Your task to perform on an android device: allow notifications from all sites in the chrome app Image 0: 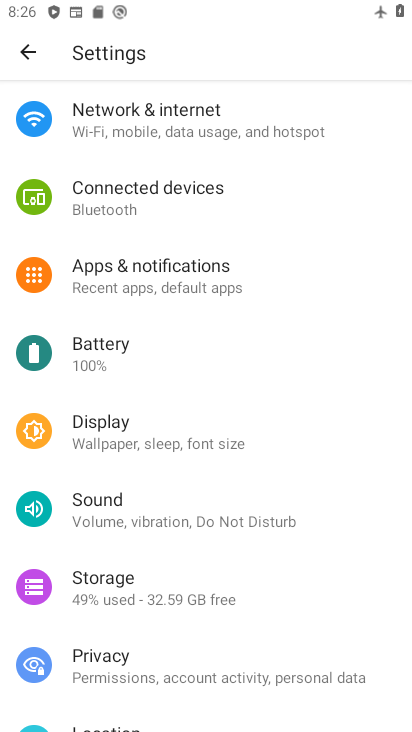
Step 0: press home button
Your task to perform on an android device: allow notifications from all sites in the chrome app Image 1: 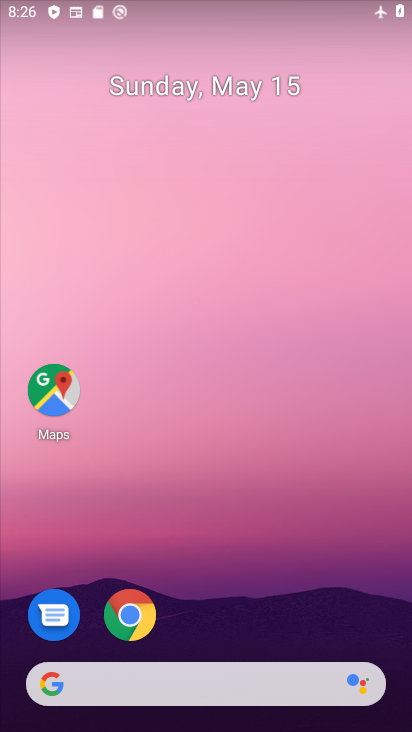
Step 1: click (124, 610)
Your task to perform on an android device: allow notifications from all sites in the chrome app Image 2: 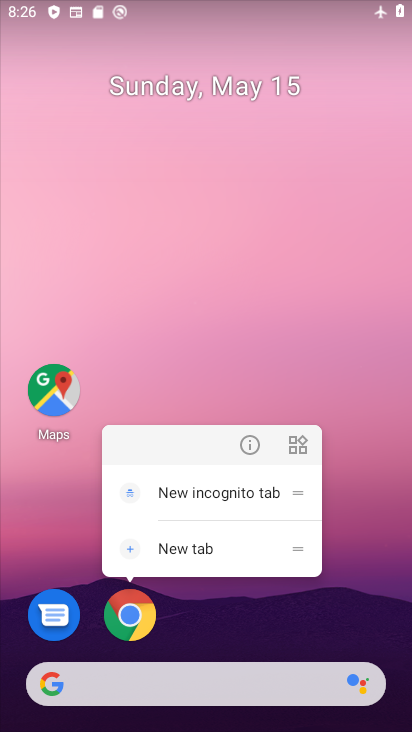
Step 2: click (118, 612)
Your task to perform on an android device: allow notifications from all sites in the chrome app Image 3: 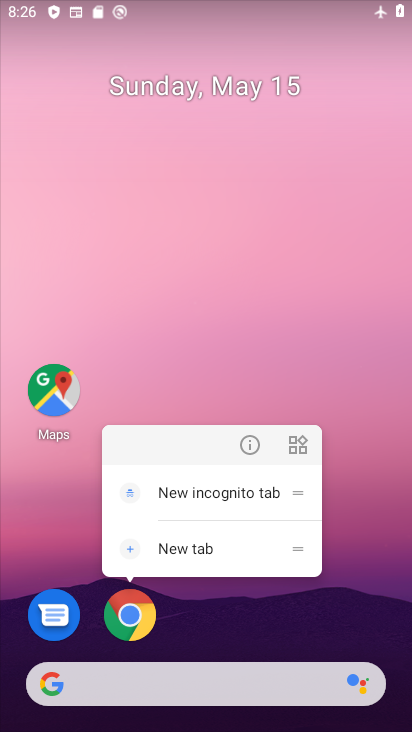
Step 3: click (149, 606)
Your task to perform on an android device: allow notifications from all sites in the chrome app Image 4: 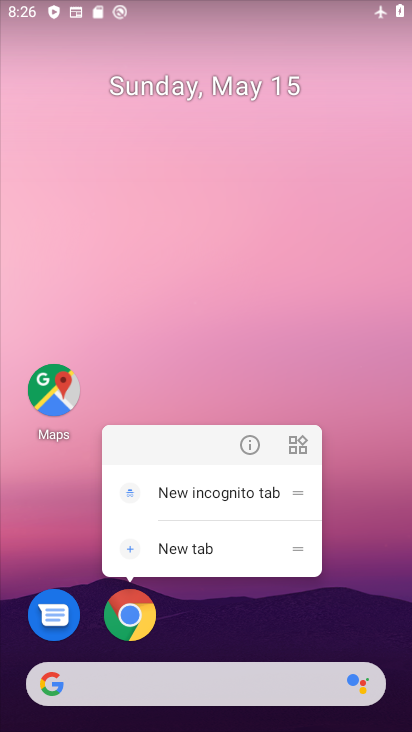
Step 4: click (130, 617)
Your task to perform on an android device: allow notifications from all sites in the chrome app Image 5: 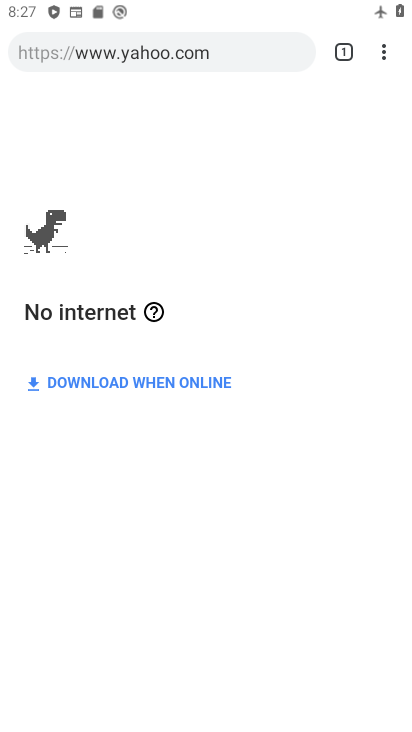
Step 5: press home button
Your task to perform on an android device: allow notifications from all sites in the chrome app Image 6: 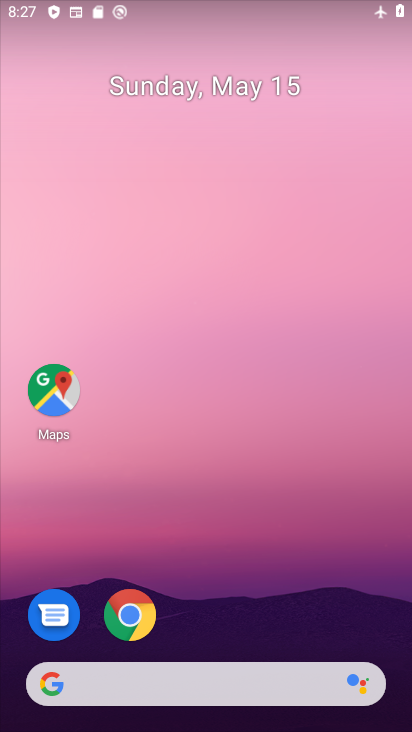
Step 6: click (122, 620)
Your task to perform on an android device: allow notifications from all sites in the chrome app Image 7: 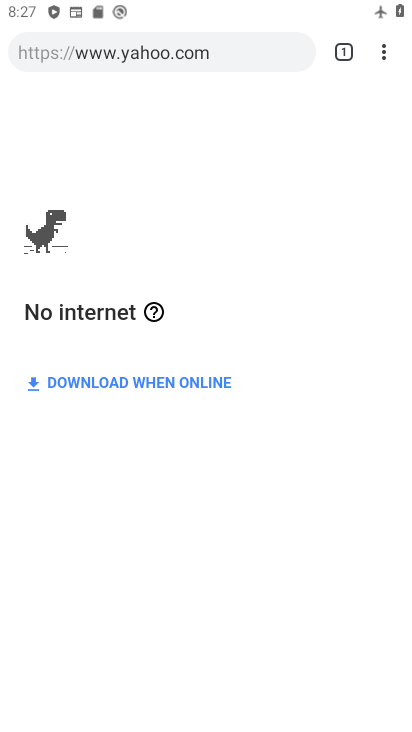
Step 7: click (379, 47)
Your task to perform on an android device: allow notifications from all sites in the chrome app Image 8: 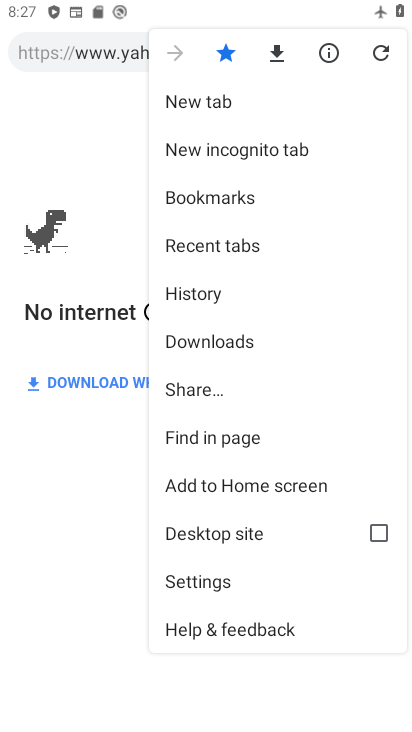
Step 8: click (195, 586)
Your task to perform on an android device: allow notifications from all sites in the chrome app Image 9: 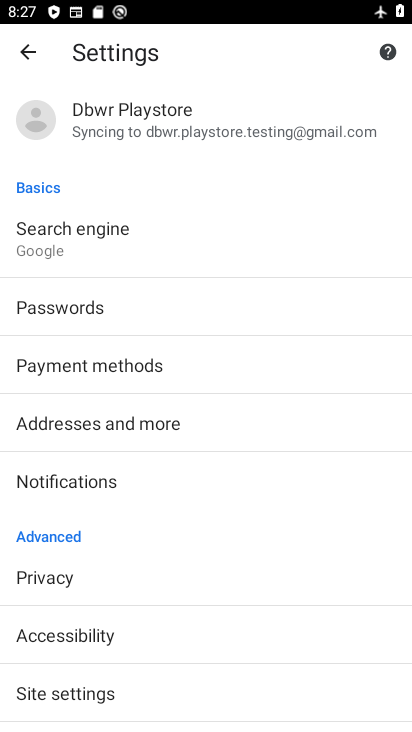
Step 9: click (88, 699)
Your task to perform on an android device: allow notifications from all sites in the chrome app Image 10: 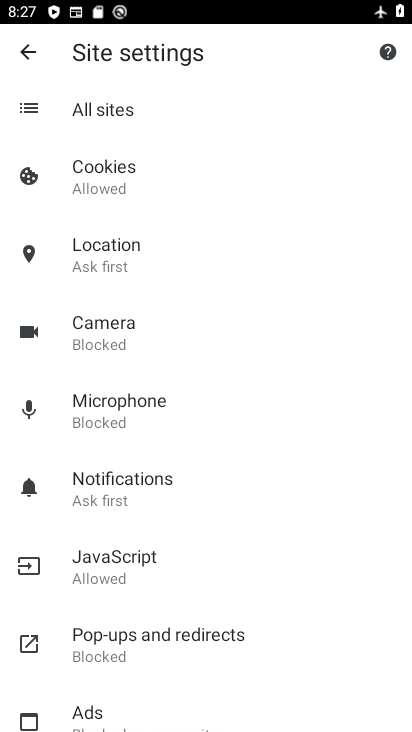
Step 10: click (105, 492)
Your task to perform on an android device: allow notifications from all sites in the chrome app Image 11: 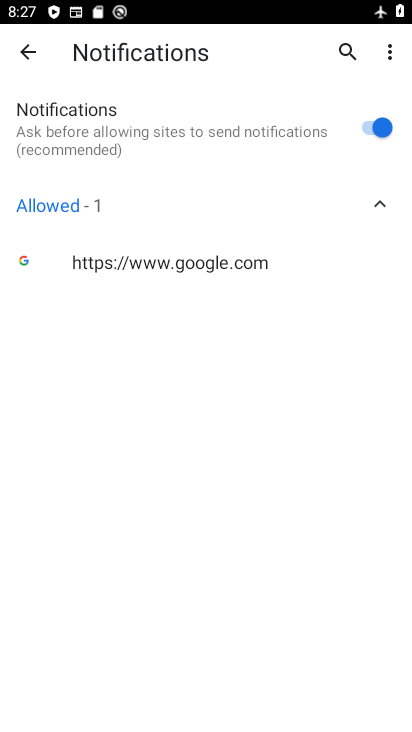
Step 11: task complete